Your task to perform on an android device: change alarm snooze length Image 0: 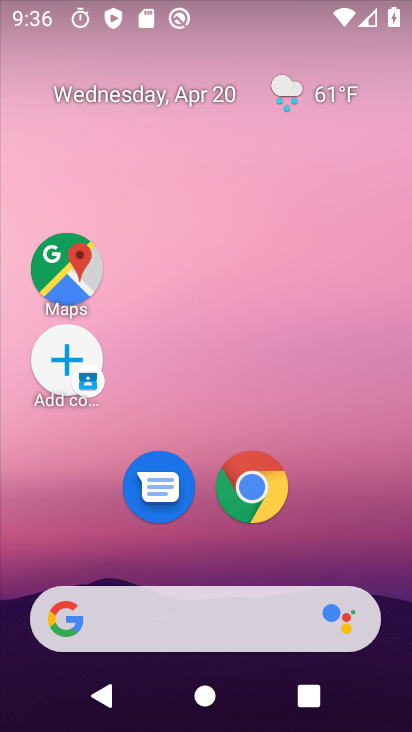
Step 0: drag from (322, 548) to (308, 167)
Your task to perform on an android device: change alarm snooze length Image 1: 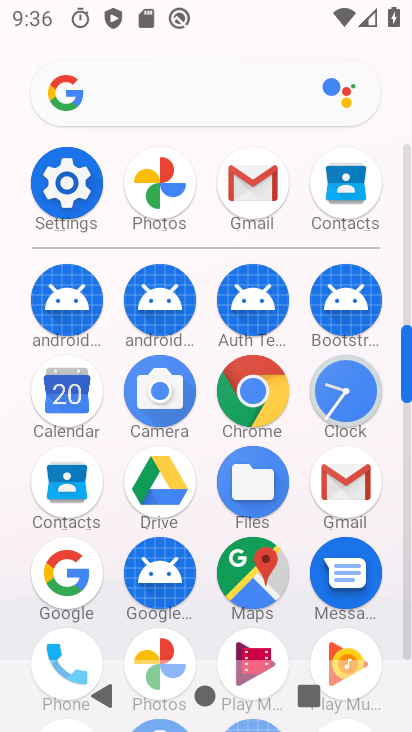
Step 1: click (343, 398)
Your task to perform on an android device: change alarm snooze length Image 2: 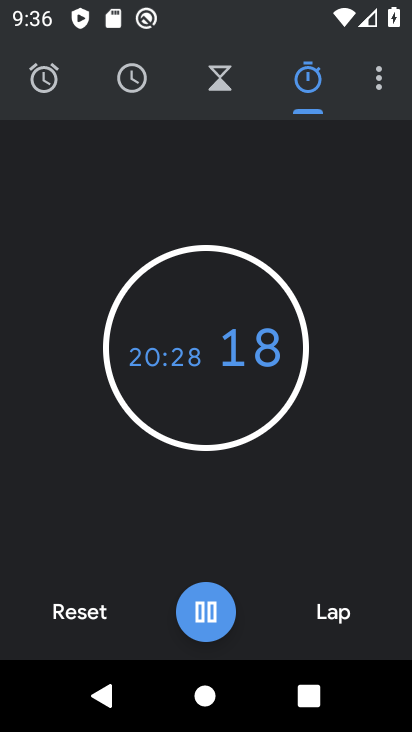
Step 2: click (375, 81)
Your task to perform on an android device: change alarm snooze length Image 3: 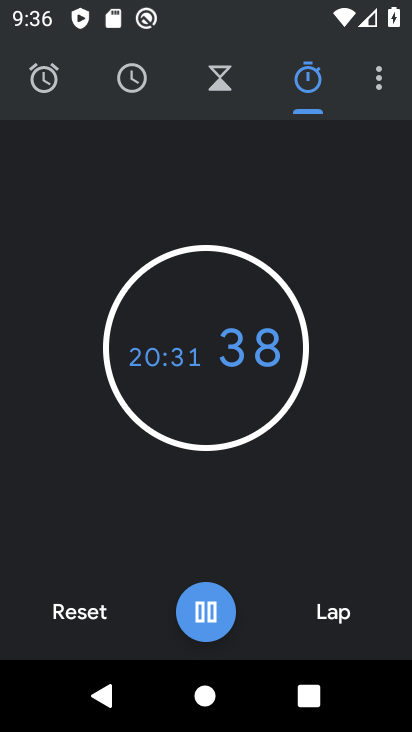
Step 3: click (375, 81)
Your task to perform on an android device: change alarm snooze length Image 4: 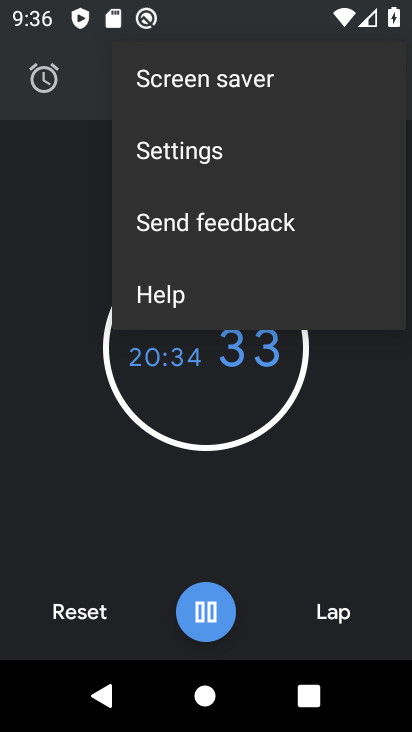
Step 4: click (304, 152)
Your task to perform on an android device: change alarm snooze length Image 5: 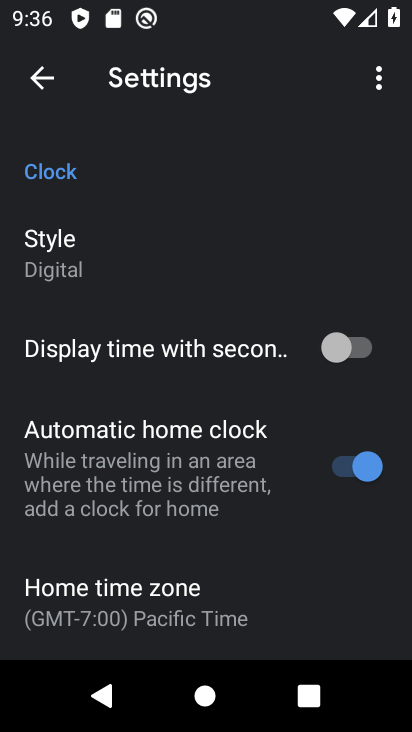
Step 5: drag from (300, 423) to (282, 295)
Your task to perform on an android device: change alarm snooze length Image 6: 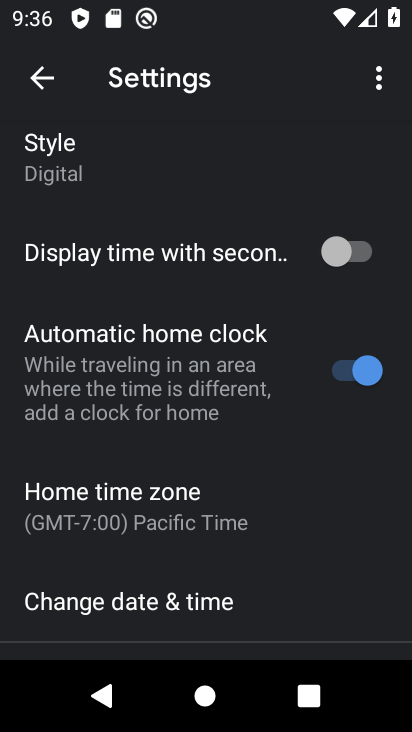
Step 6: drag from (268, 457) to (233, 334)
Your task to perform on an android device: change alarm snooze length Image 7: 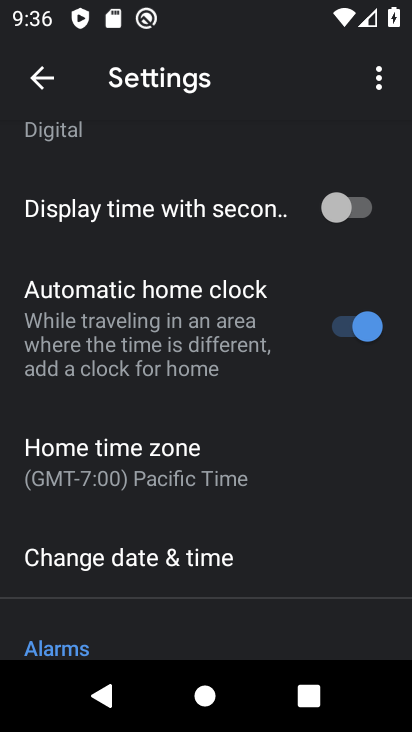
Step 7: drag from (171, 502) to (146, 394)
Your task to perform on an android device: change alarm snooze length Image 8: 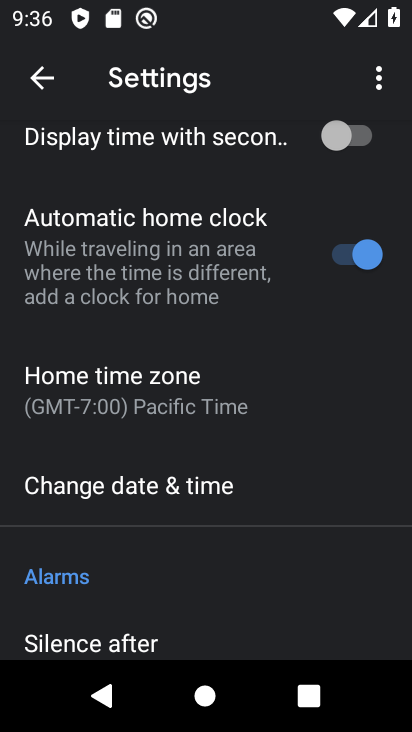
Step 8: drag from (122, 525) to (108, 455)
Your task to perform on an android device: change alarm snooze length Image 9: 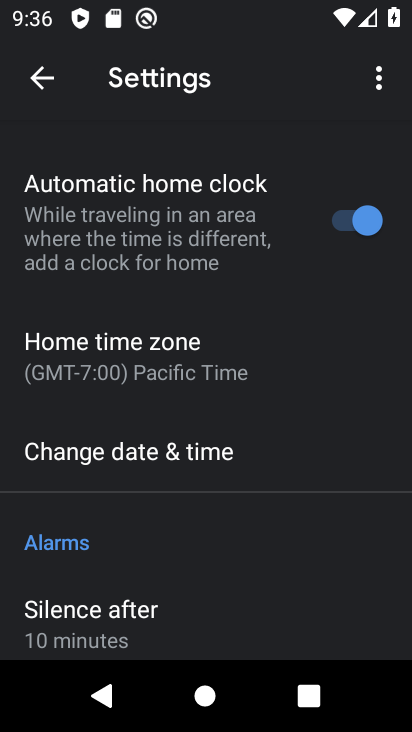
Step 9: drag from (119, 518) to (107, 428)
Your task to perform on an android device: change alarm snooze length Image 10: 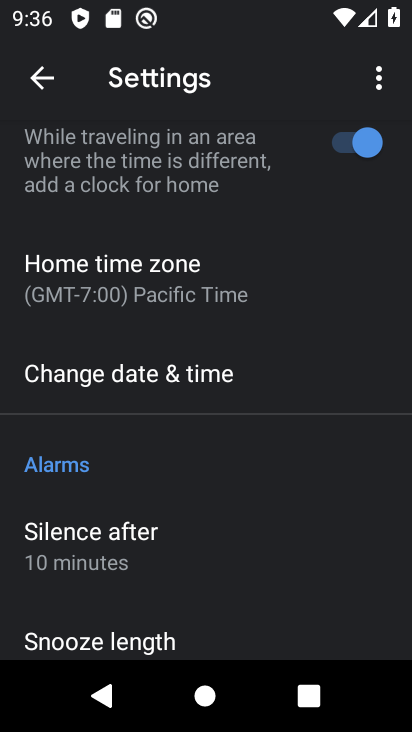
Step 10: drag from (120, 487) to (116, 396)
Your task to perform on an android device: change alarm snooze length Image 11: 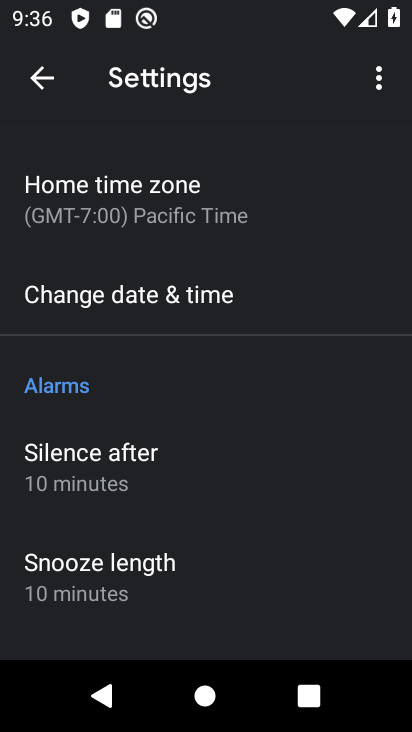
Step 11: click (147, 543)
Your task to perform on an android device: change alarm snooze length Image 12: 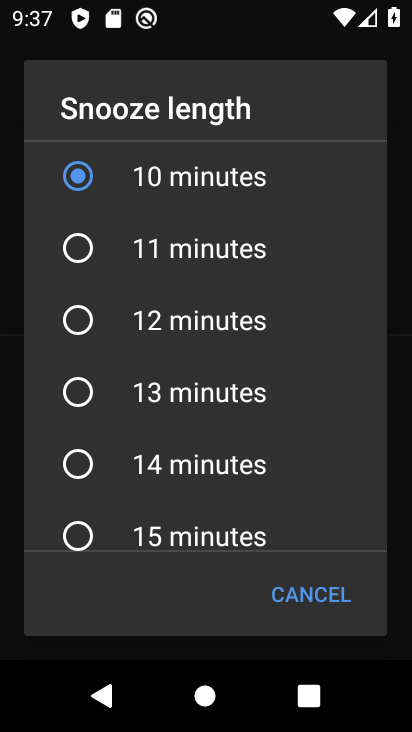
Step 12: click (164, 274)
Your task to perform on an android device: change alarm snooze length Image 13: 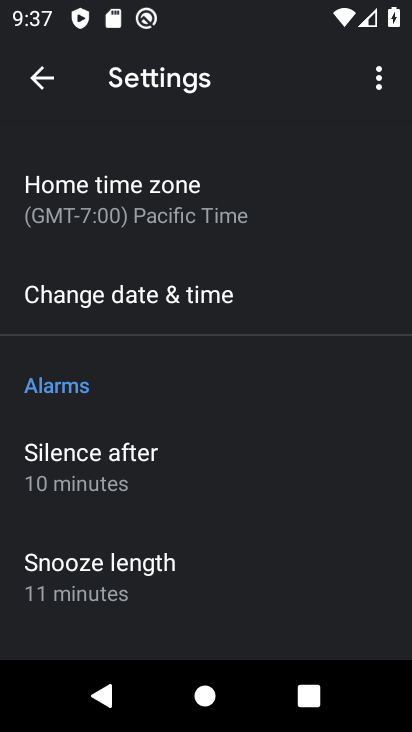
Step 13: task complete